Your task to perform on an android device: Go to ESPN.com Image 0: 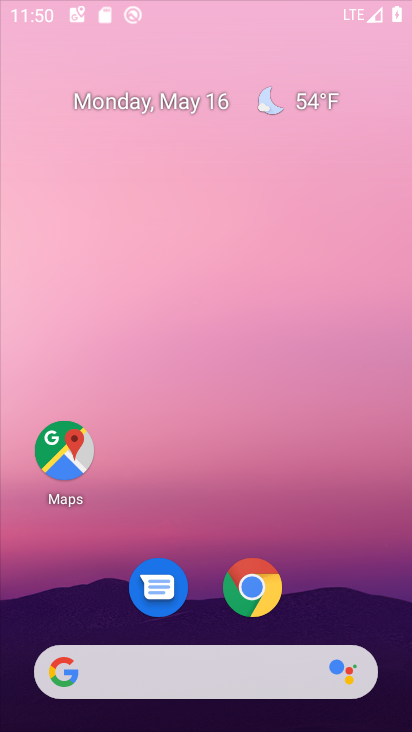
Step 0: click (386, 215)
Your task to perform on an android device: Go to ESPN.com Image 1: 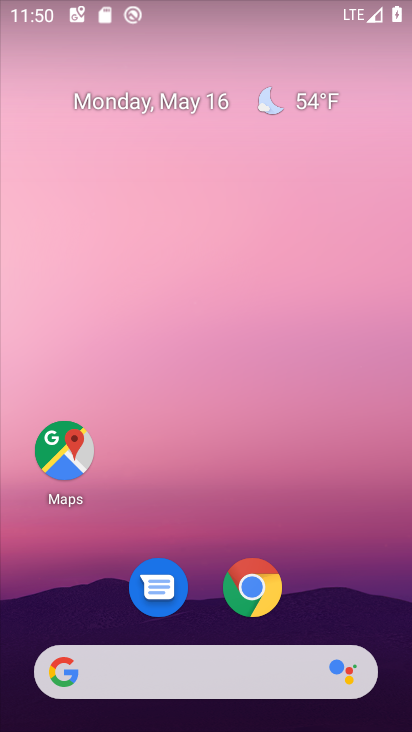
Step 1: click (256, 588)
Your task to perform on an android device: Go to ESPN.com Image 2: 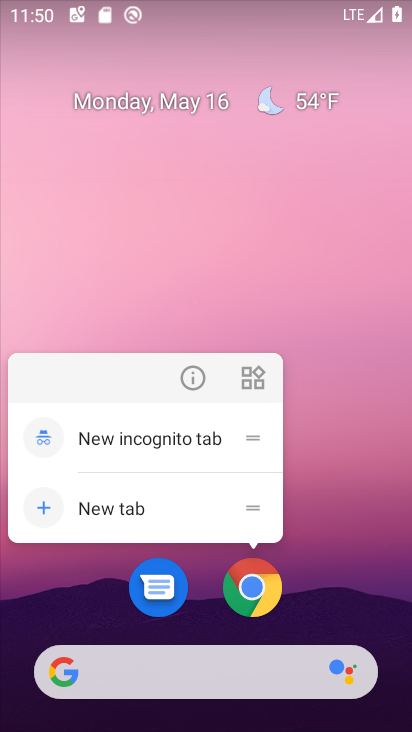
Step 2: click (260, 589)
Your task to perform on an android device: Go to ESPN.com Image 3: 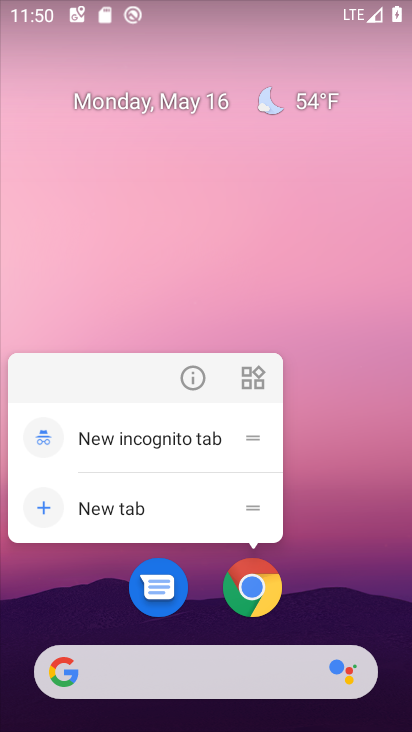
Step 3: click (260, 587)
Your task to perform on an android device: Go to ESPN.com Image 4: 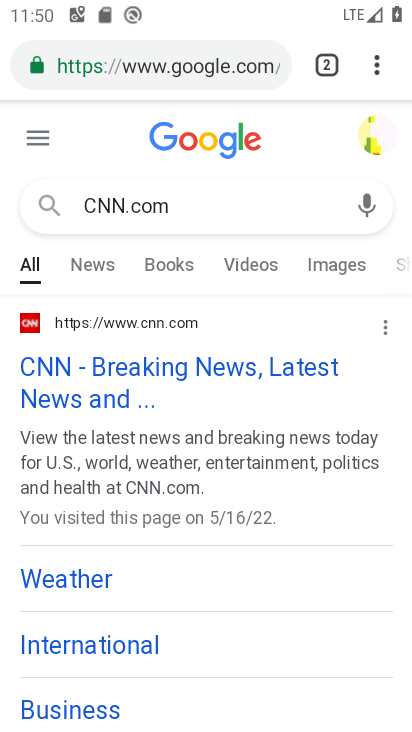
Step 4: click (182, 194)
Your task to perform on an android device: Go to ESPN.com Image 5: 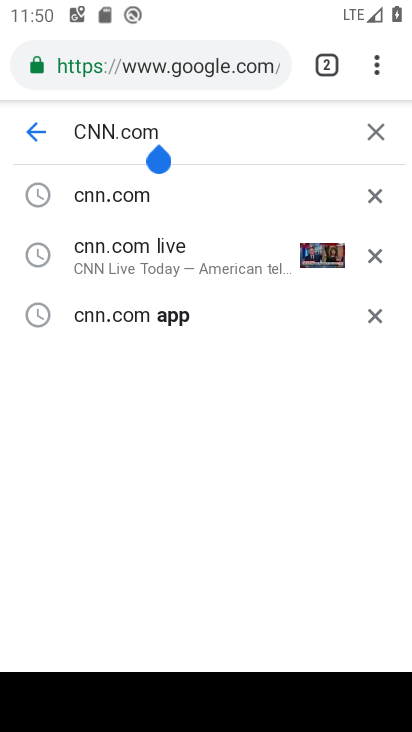
Step 5: click (222, 55)
Your task to perform on an android device: Go to ESPN.com Image 6: 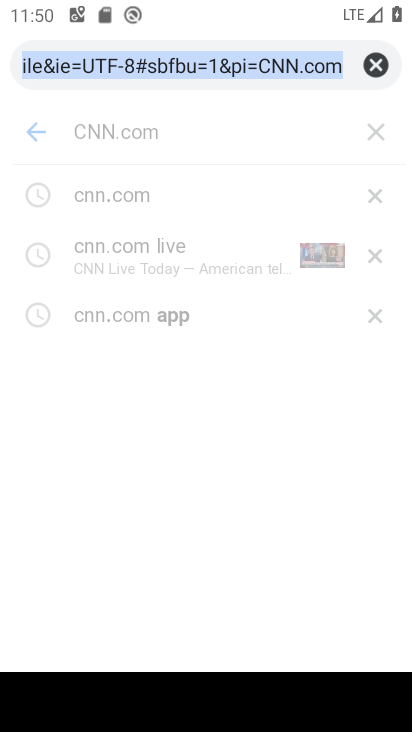
Step 6: type "ESPN.com"
Your task to perform on an android device: Go to ESPN.com Image 7: 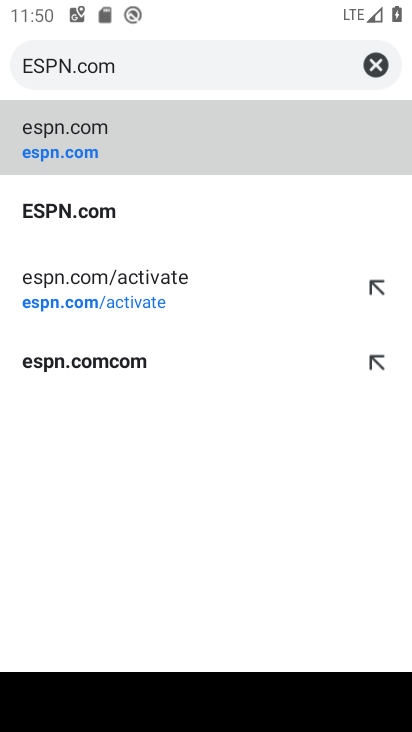
Step 7: click (101, 131)
Your task to perform on an android device: Go to ESPN.com Image 8: 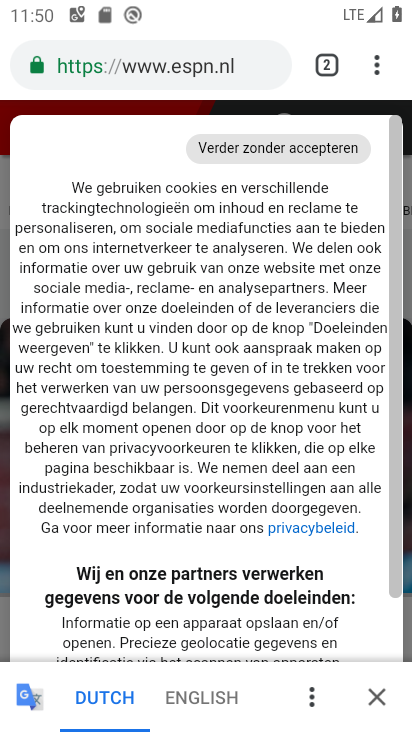
Step 8: task complete